Your task to perform on an android device: open the mobile data screen to see how much data has been used Image 0: 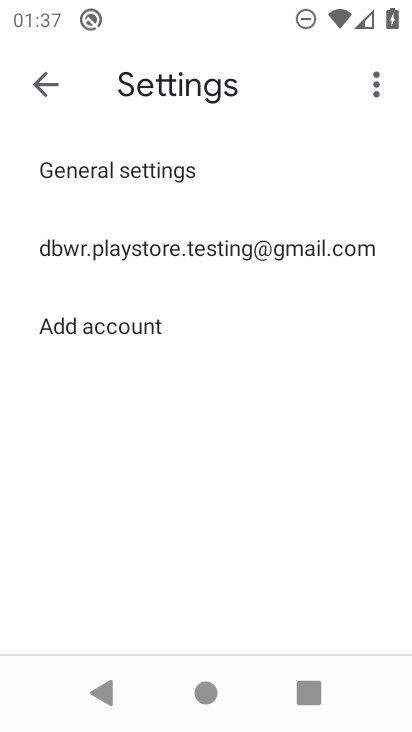
Step 0: drag from (295, 596) to (360, 349)
Your task to perform on an android device: open the mobile data screen to see how much data has been used Image 1: 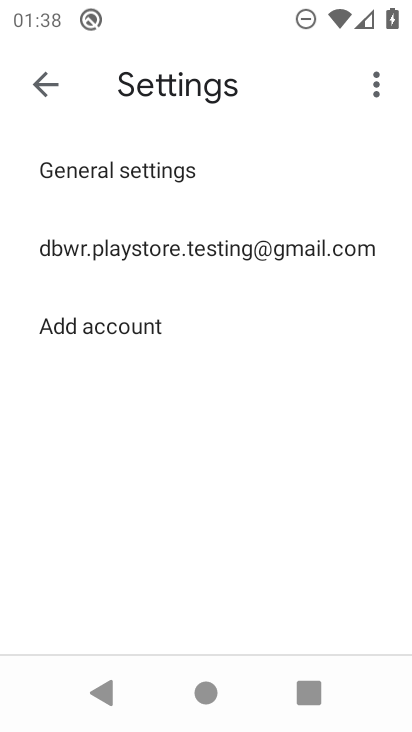
Step 1: press home button
Your task to perform on an android device: open the mobile data screen to see how much data has been used Image 2: 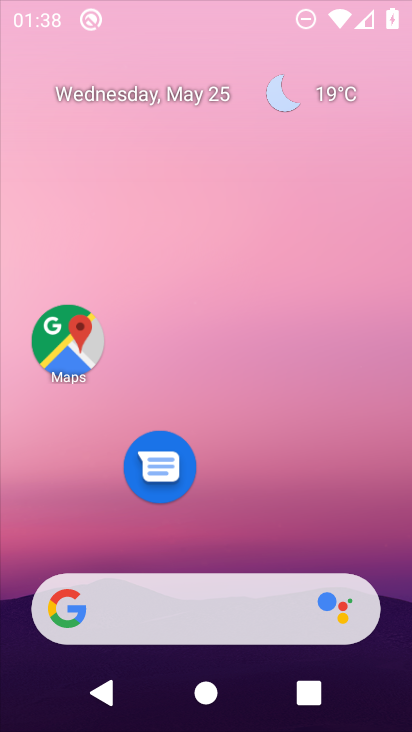
Step 2: drag from (238, 574) to (267, 445)
Your task to perform on an android device: open the mobile data screen to see how much data has been used Image 3: 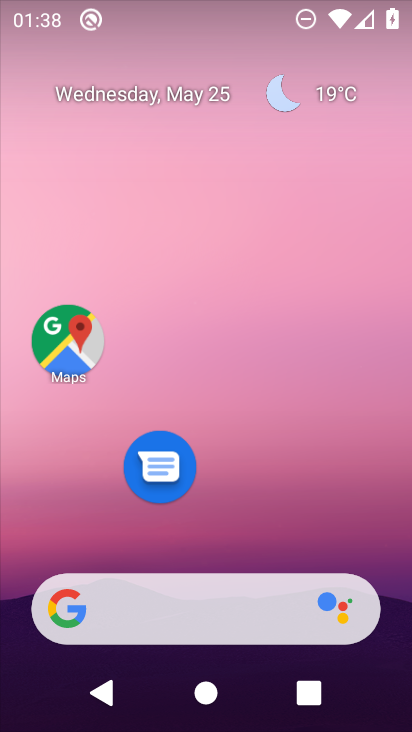
Step 3: drag from (215, 542) to (243, 115)
Your task to perform on an android device: open the mobile data screen to see how much data has been used Image 4: 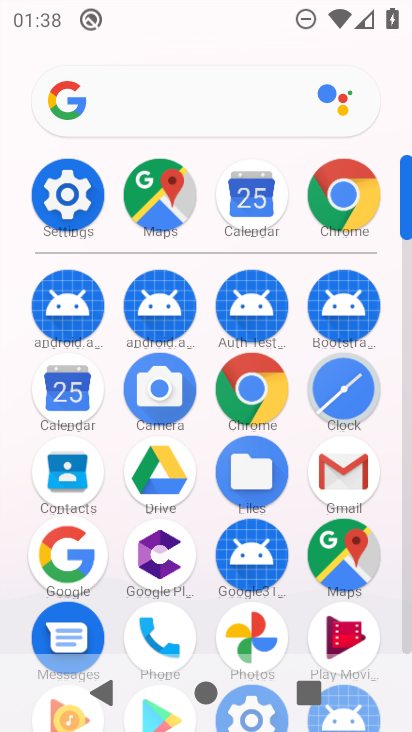
Step 4: click (69, 198)
Your task to perform on an android device: open the mobile data screen to see how much data has been used Image 5: 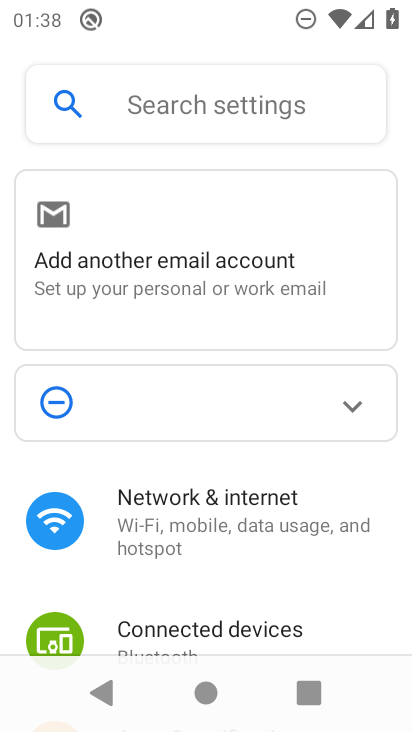
Step 5: click (195, 515)
Your task to perform on an android device: open the mobile data screen to see how much data has been used Image 6: 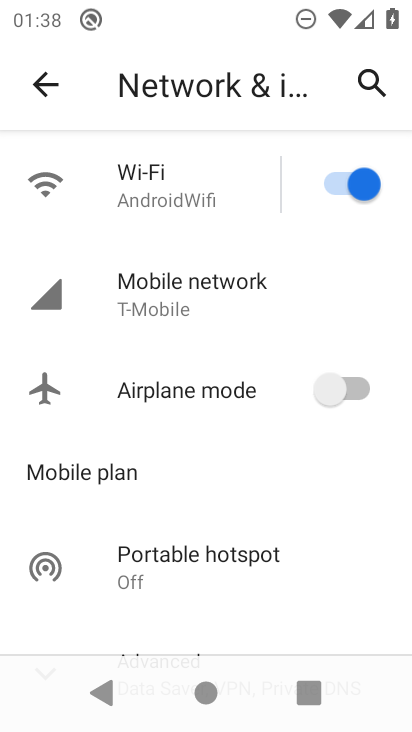
Step 6: click (257, 275)
Your task to perform on an android device: open the mobile data screen to see how much data has been used Image 7: 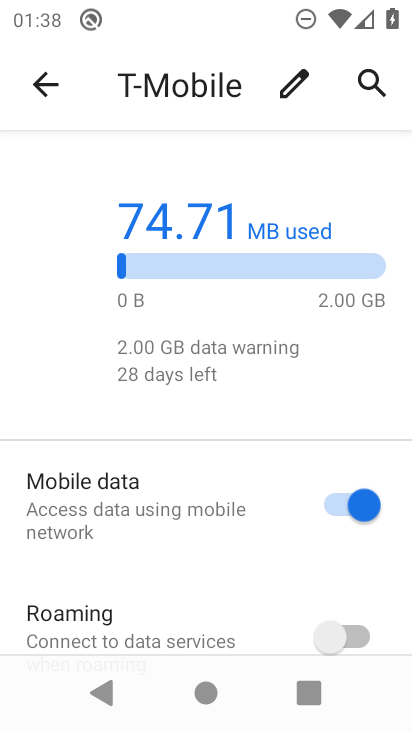
Step 7: task complete